Your task to perform on an android device: Open battery settings Image 0: 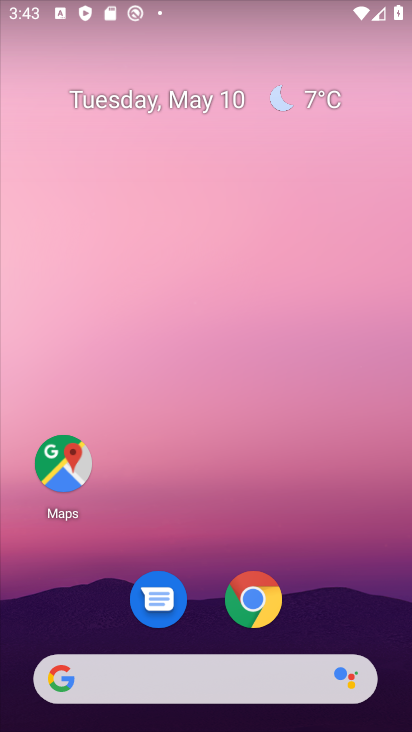
Step 0: drag from (249, 496) to (374, 84)
Your task to perform on an android device: Open battery settings Image 1: 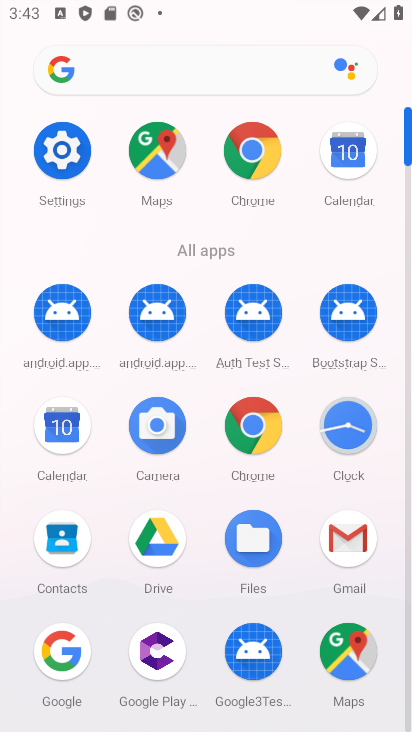
Step 1: click (46, 171)
Your task to perform on an android device: Open battery settings Image 2: 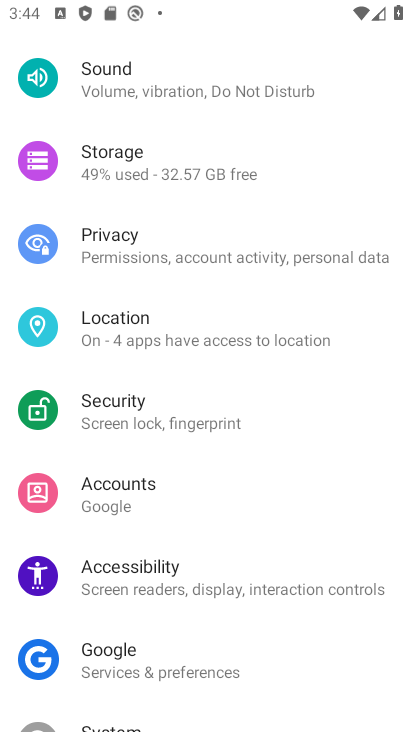
Step 2: drag from (139, 564) to (255, 187)
Your task to perform on an android device: Open battery settings Image 3: 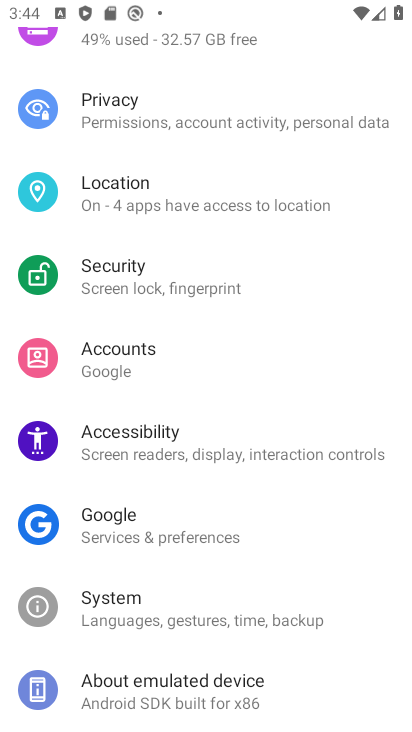
Step 3: drag from (163, 370) to (173, 726)
Your task to perform on an android device: Open battery settings Image 4: 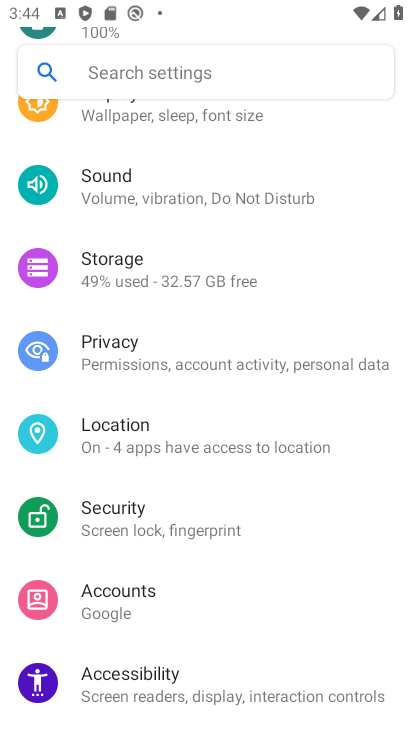
Step 4: drag from (242, 324) to (263, 713)
Your task to perform on an android device: Open battery settings Image 5: 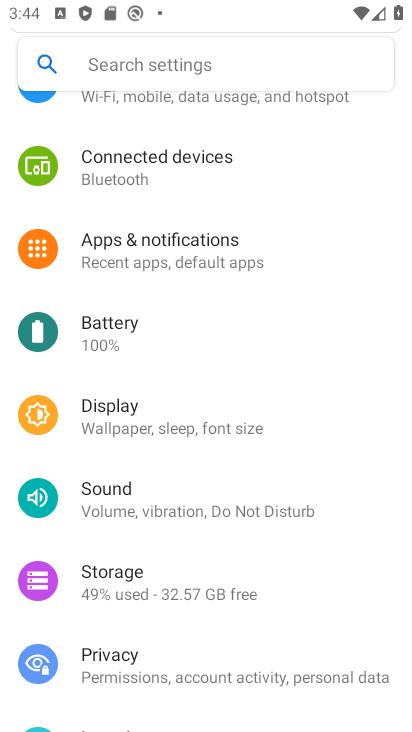
Step 5: click (160, 341)
Your task to perform on an android device: Open battery settings Image 6: 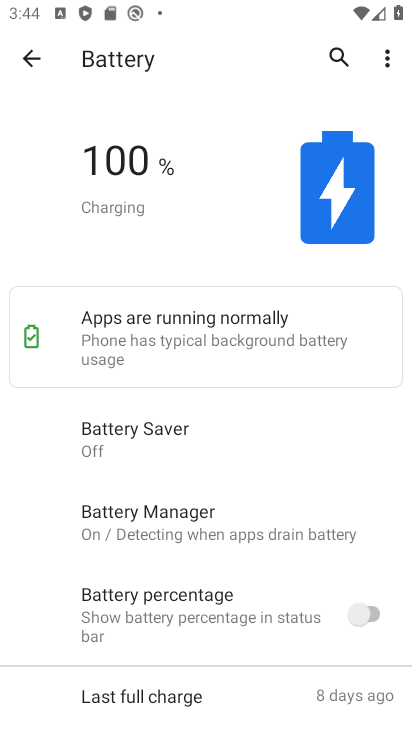
Step 6: task complete